Your task to perform on an android device: turn pop-ups off in chrome Image 0: 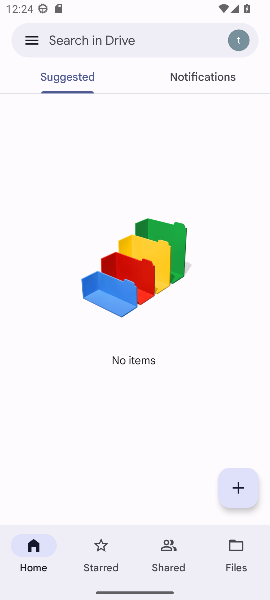
Step 0: press home button
Your task to perform on an android device: turn pop-ups off in chrome Image 1: 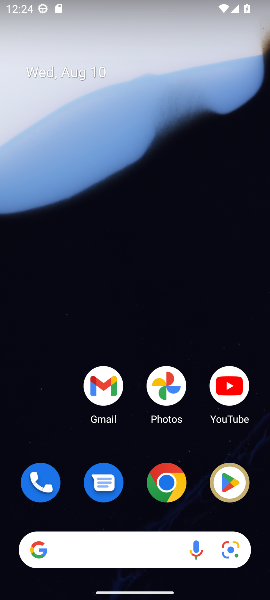
Step 1: click (181, 483)
Your task to perform on an android device: turn pop-ups off in chrome Image 2: 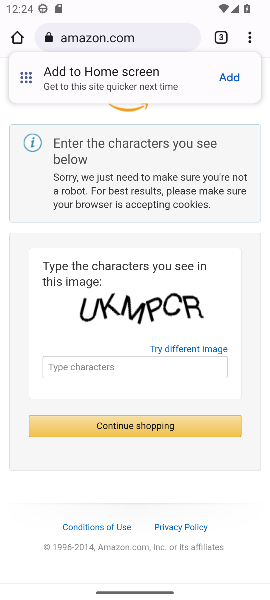
Step 2: click (255, 38)
Your task to perform on an android device: turn pop-ups off in chrome Image 3: 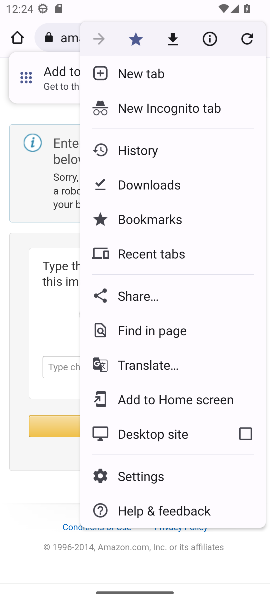
Step 3: click (150, 84)
Your task to perform on an android device: turn pop-ups off in chrome Image 4: 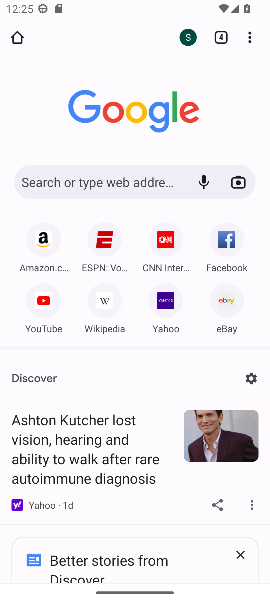
Step 4: task complete